Your task to perform on an android device: open chrome privacy settings Image 0: 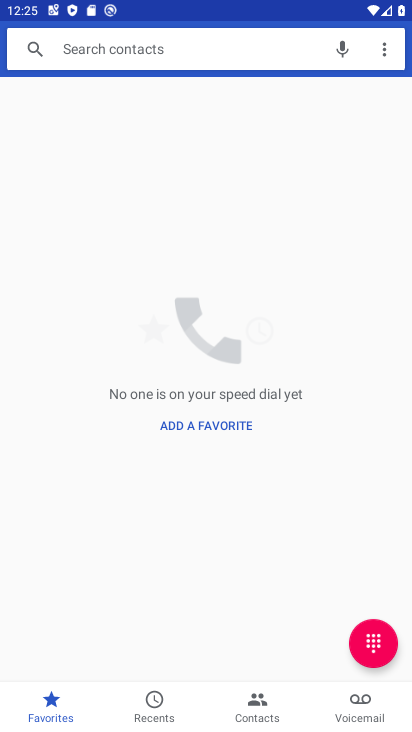
Step 0: press home button
Your task to perform on an android device: open chrome privacy settings Image 1: 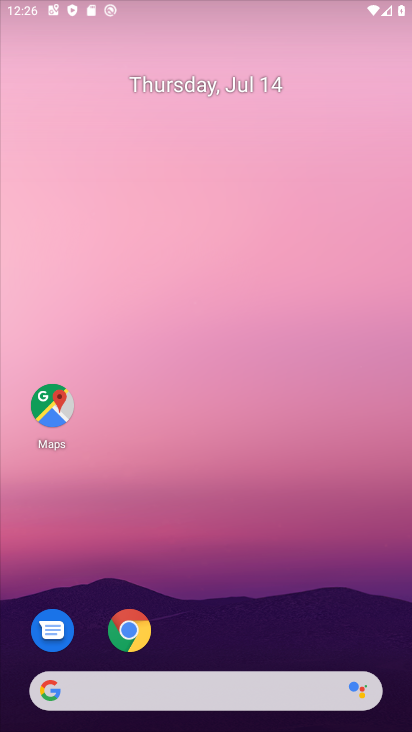
Step 1: drag from (158, 663) to (213, 210)
Your task to perform on an android device: open chrome privacy settings Image 2: 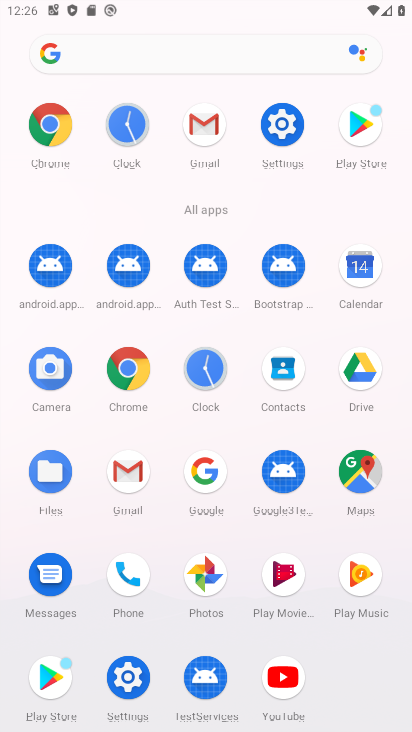
Step 2: click (272, 132)
Your task to perform on an android device: open chrome privacy settings Image 3: 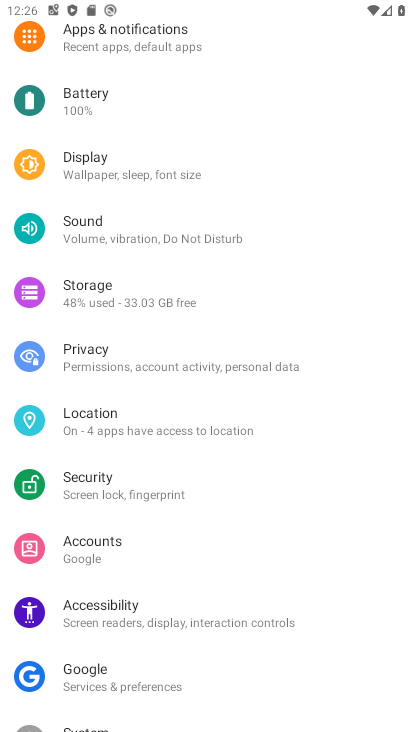
Step 3: click (93, 352)
Your task to perform on an android device: open chrome privacy settings Image 4: 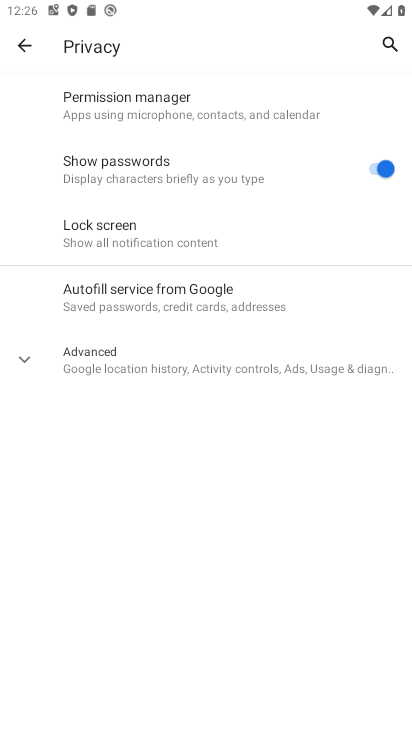
Step 4: click (90, 349)
Your task to perform on an android device: open chrome privacy settings Image 5: 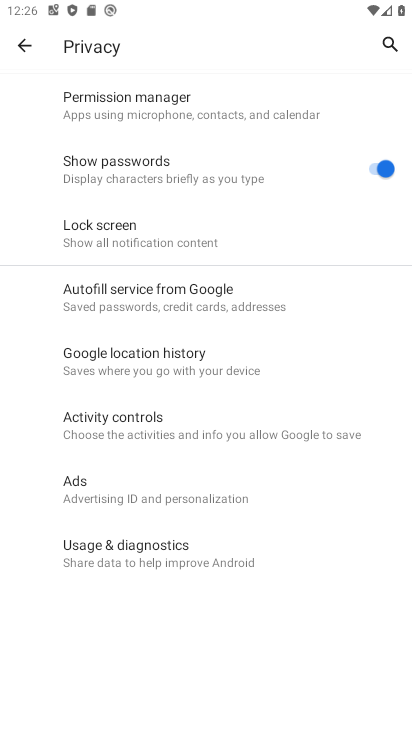
Step 5: task complete